Your task to perform on an android device: turn vacation reply on in the gmail app Image 0: 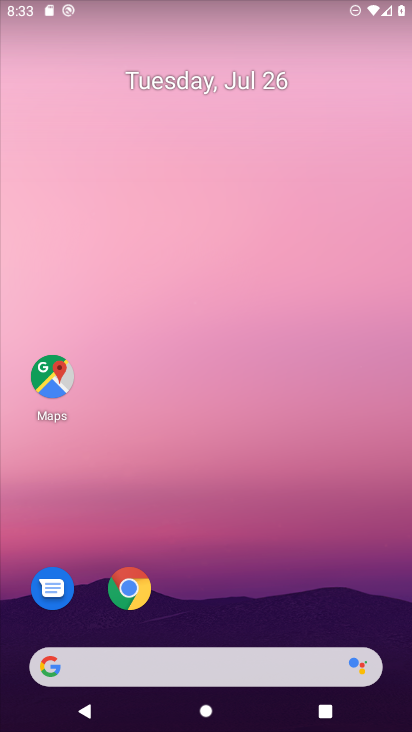
Step 0: drag from (239, 617) to (252, 14)
Your task to perform on an android device: turn vacation reply on in the gmail app Image 1: 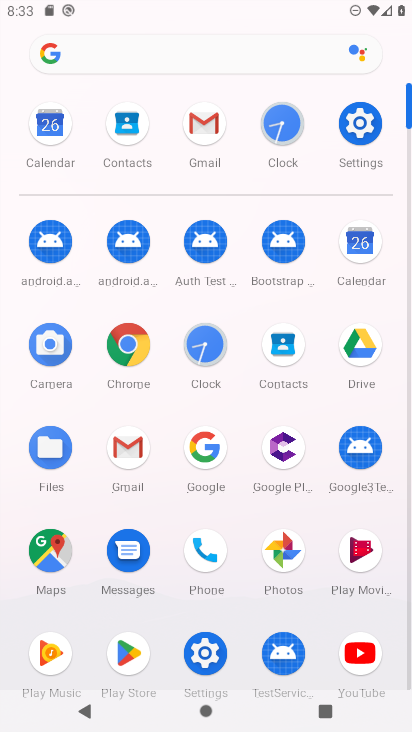
Step 1: click (200, 136)
Your task to perform on an android device: turn vacation reply on in the gmail app Image 2: 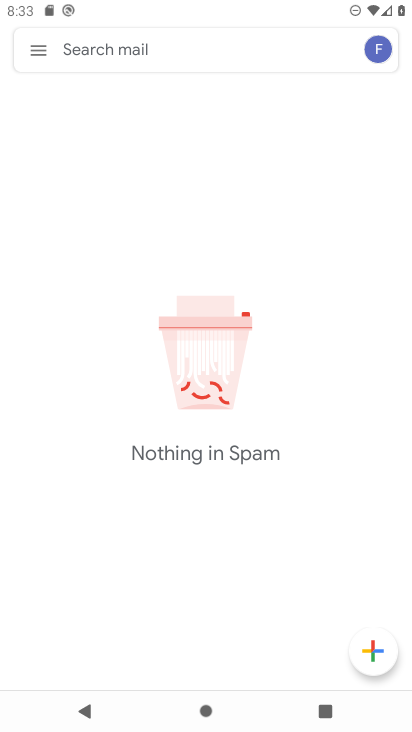
Step 2: click (38, 45)
Your task to perform on an android device: turn vacation reply on in the gmail app Image 3: 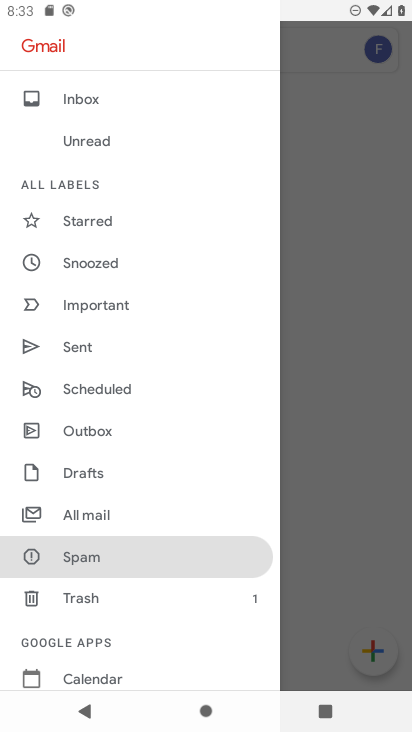
Step 3: drag from (152, 584) to (117, 208)
Your task to perform on an android device: turn vacation reply on in the gmail app Image 4: 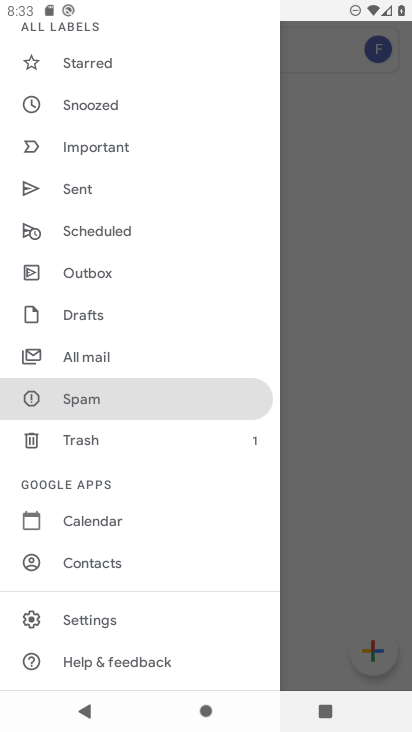
Step 4: click (71, 622)
Your task to perform on an android device: turn vacation reply on in the gmail app Image 5: 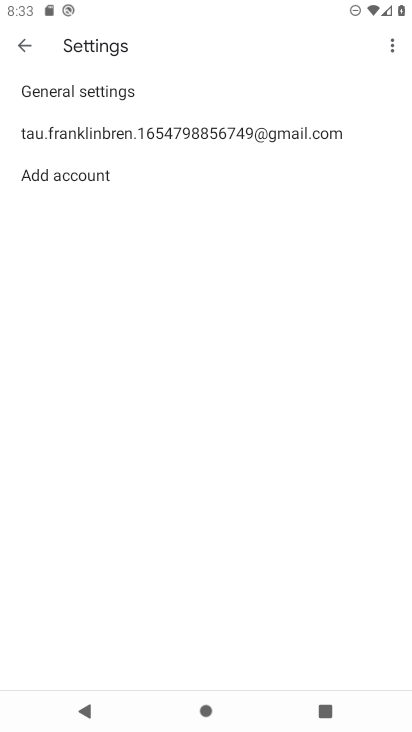
Step 5: click (89, 133)
Your task to perform on an android device: turn vacation reply on in the gmail app Image 6: 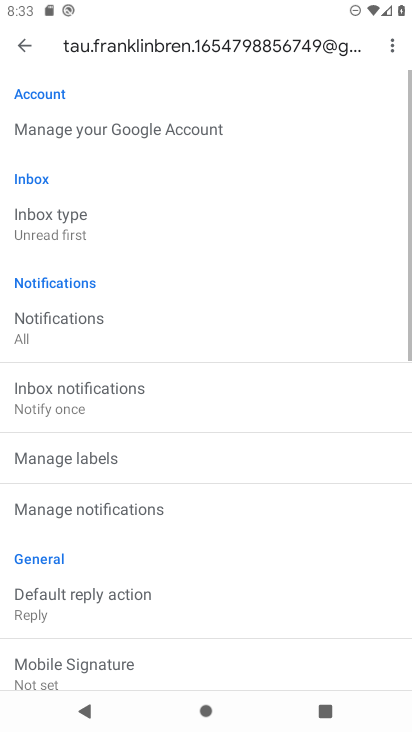
Step 6: drag from (196, 558) to (151, 129)
Your task to perform on an android device: turn vacation reply on in the gmail app Image 7: 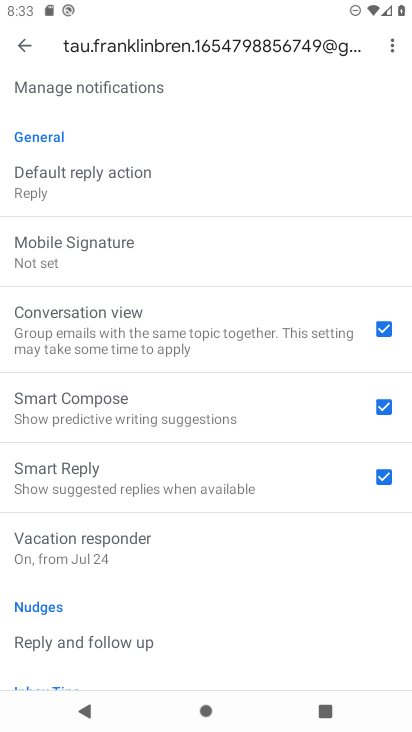
Step 7: click (90, 551)
Your task to perform on an android device: turn vacation reply on in the gmail app Image 8: 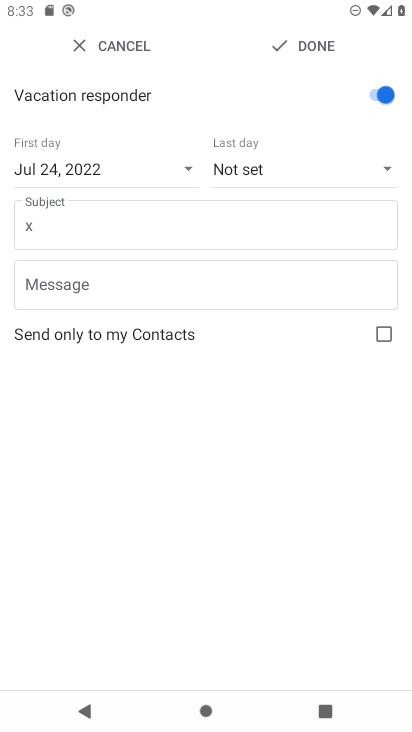
Step 8: click (314, 42)
Your task to perform on an android device: turn vacation reply on in the gmail app Image 9: 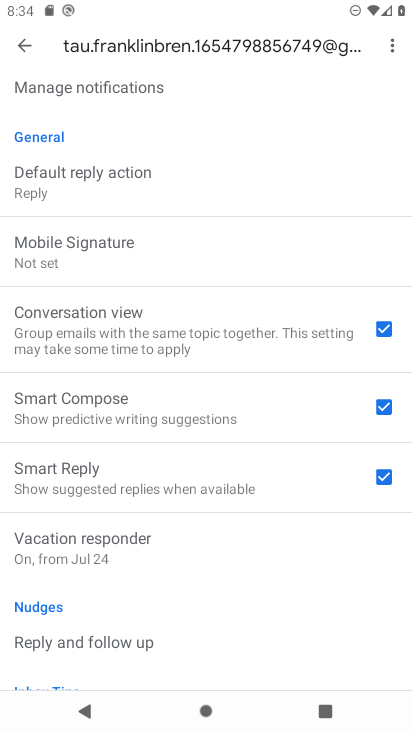
Step 9: task complete